Your task to perform on an android device: Go to display settings Image 0: 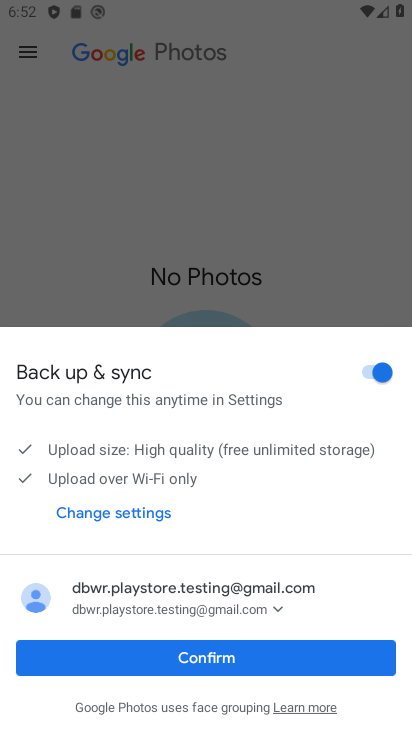
Step 0: press home button
Your task to perform on an android device: Go to display settings Image 1: 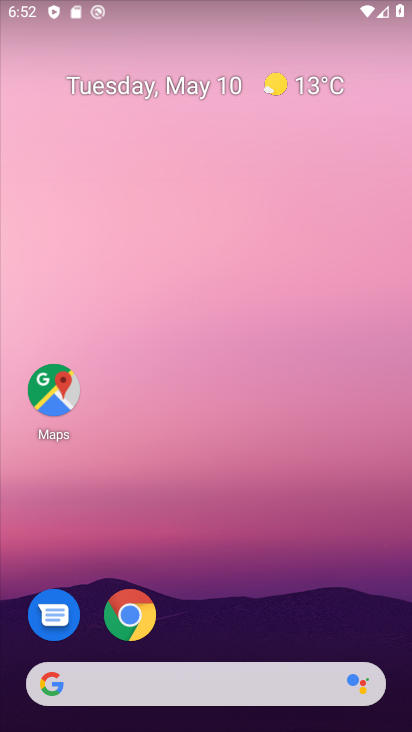
Step 1: drag from (340, 508) to (381, 22)
Your task to perform on an android device: Go to display settings Image 2: 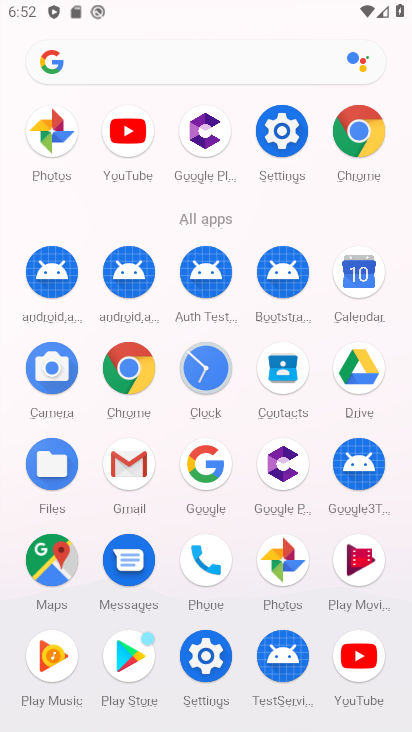
Step 2: click (275, 119)
Your task to perform on an android device: Go to display settings Image 3: 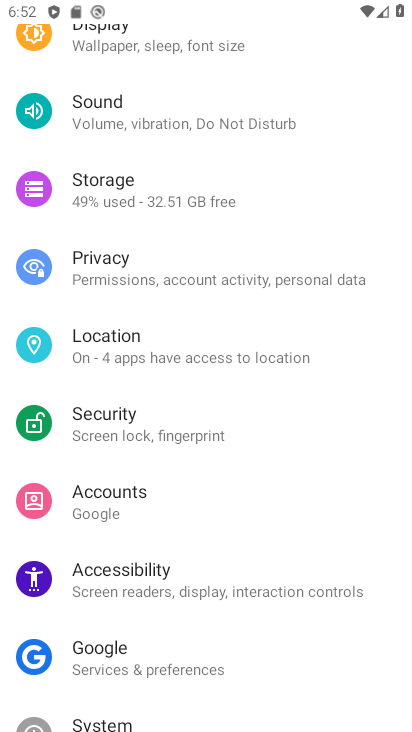
Step 3: drag from (185, 124) to (182, 413)
Your task to perform on an android device: Go to display settings Image 4: 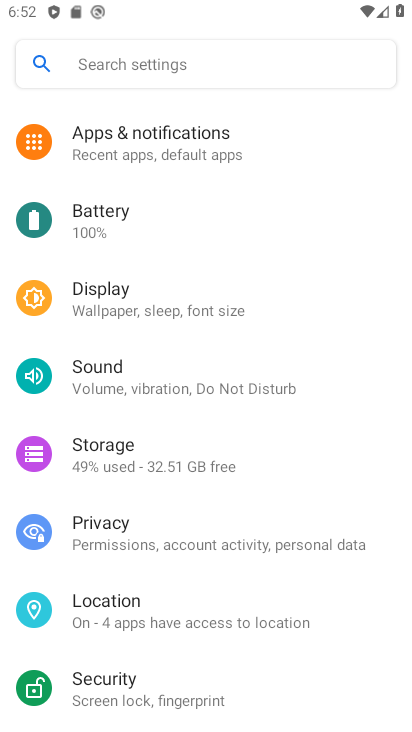
Step 4: click (141, 305)
Your task to perform on an android device: Go to display settings Image 5: 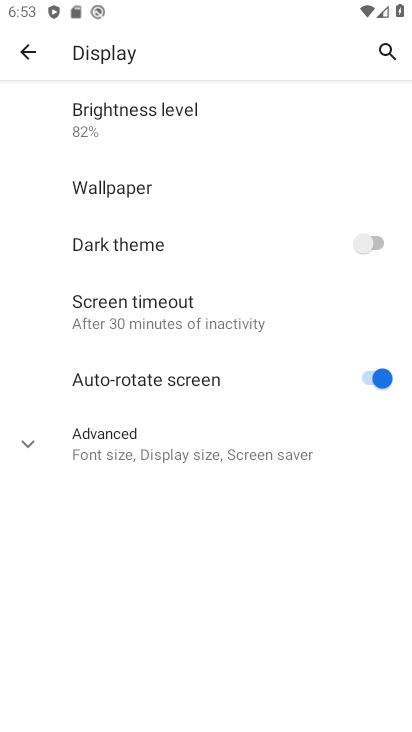
Step 5: task complete